Your task to perform on an android device: toggle priority inbox in the gmail app Image 0: 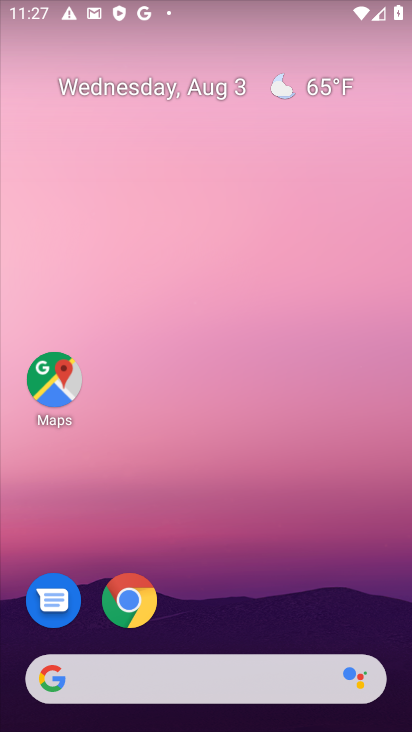
Step 0: drag from (207, 647) to (203, 142)
Your task to perform on an android device: toggle priority inbox in the gmail app Image 1: 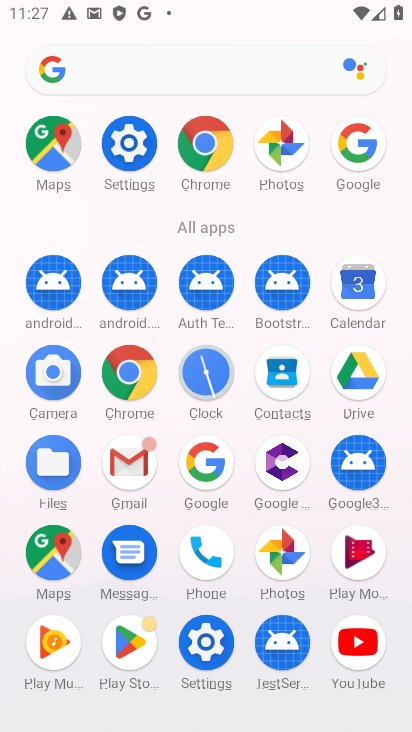
Step 1: click (128, 464)
Your task to perform on an android device: toggle priority inbox in the gmail app Image 2: 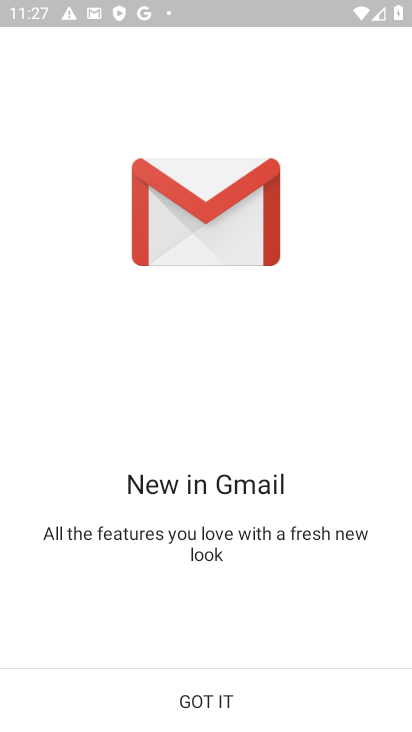
Step 2: click (194, 682)
Your task to perform on an android device: toggle priority inbox in the gmail app Image 3: 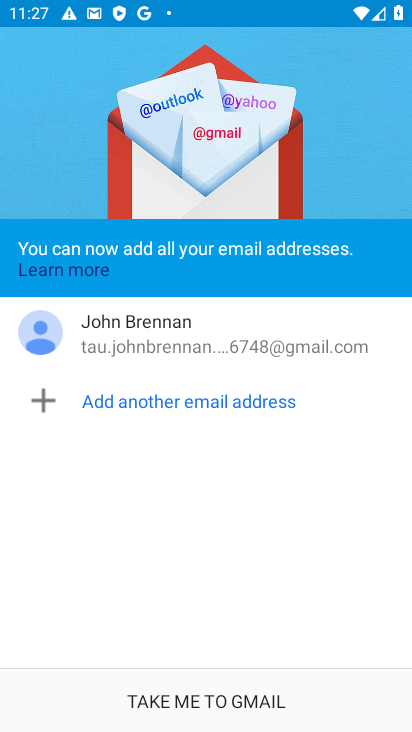
Step 3: click (250, 686)
Your task to perform on an android device: toggle priority inbox in the gmail app Image 4: 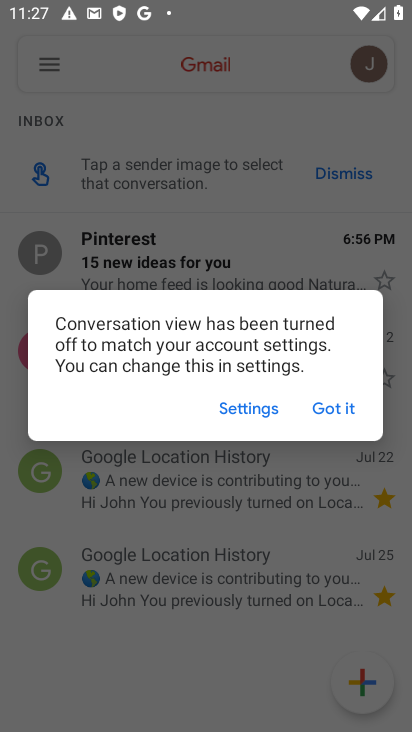
Step 4: click (335, 415)
Your task to perform on an android device: toggle priority inbox in the gmail app Image 5: 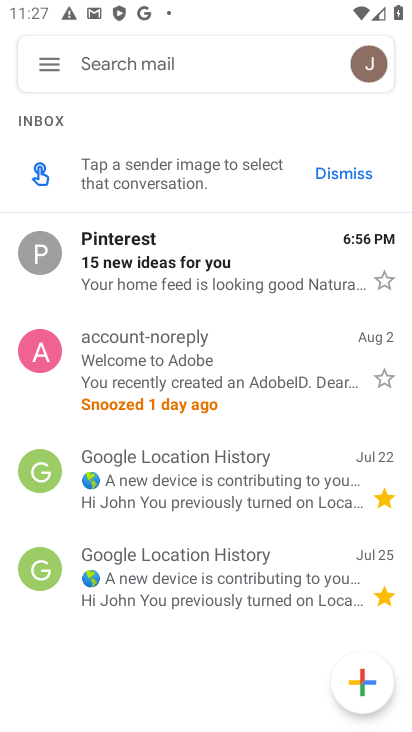
Step 5: click (43, 77)
Your task to perform on an android device: toggle priority inbox in the gmail app Image 6: 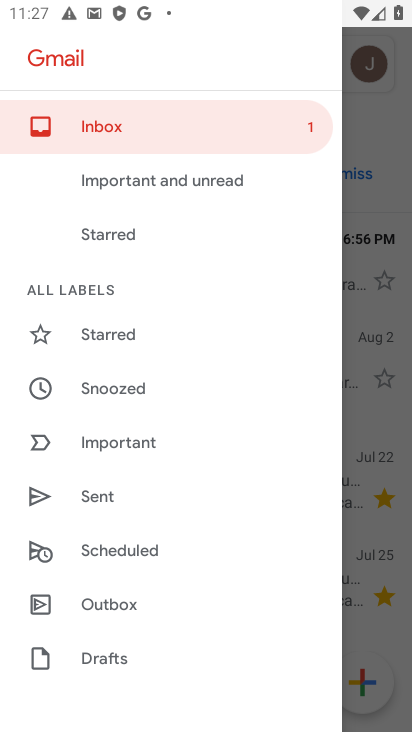
Step 6: drag from (128, 639) to (36, 51)
Your task to perform on an android device: toggle priority inbox in the gmail app Image 7: 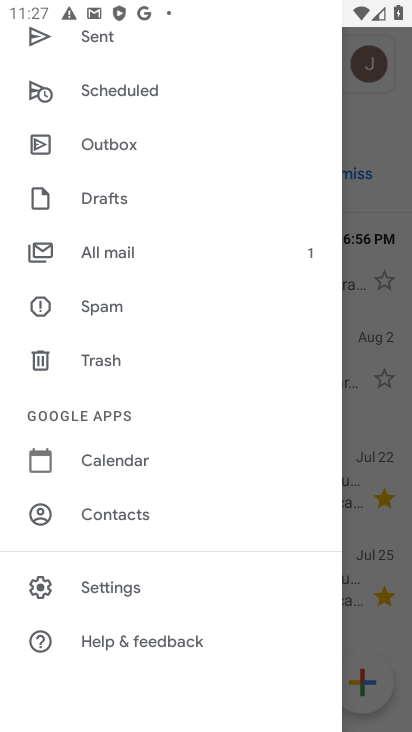
Step 7: click (89, 574)
Your task to perform on an android device: toggle priority inbox in the gmail app Image 8: 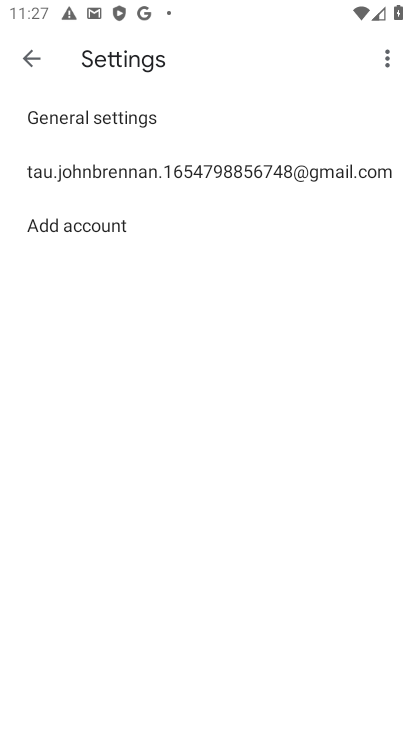
Step 8: click (90, 118)
Your task to perform on an android device: toggle priority inbox in the gmail app Image 9: 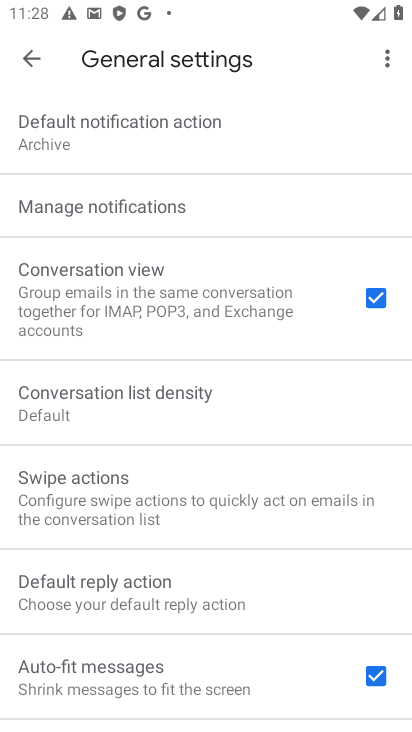
Step 9: click (40, 63)
Your task to perform on an android device: toggle priority inbox in the gmail app Image 10: 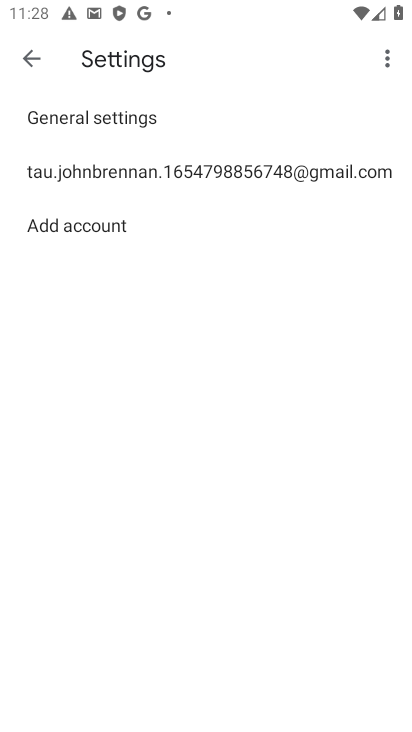
Step 10: click (79, 174)
Your task to perform on an android device: toggle priority inbox in the gmail app Image 11: 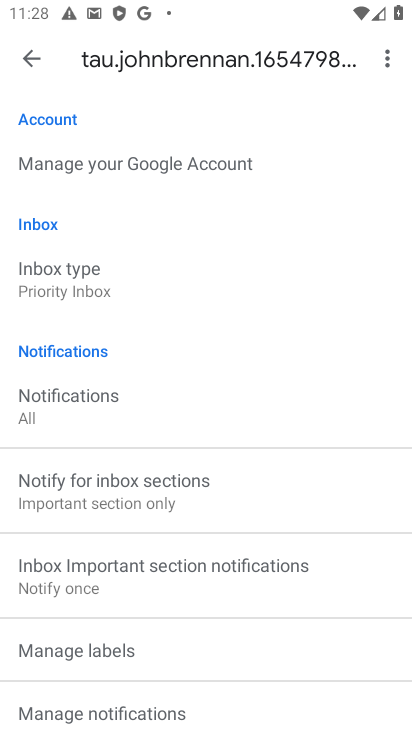
Step 11: click (87, 278)
Your task to perform on an android device: toggle priority inbox in the gmail app Image 12: 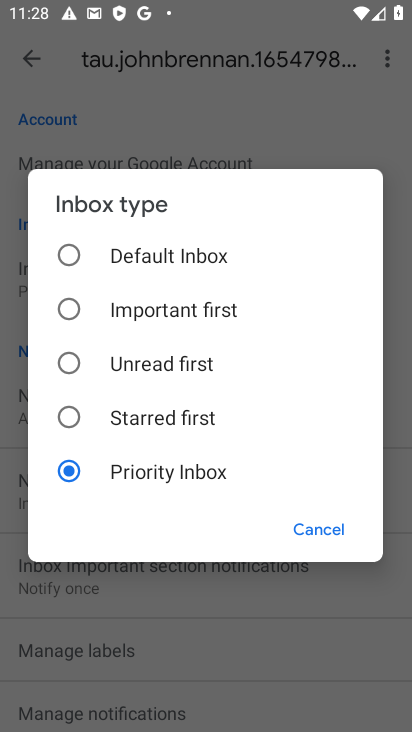
Step 12: click (73, 409)
Your task to perform on an android device: toggle priority inbox in the gmail app Image 13: 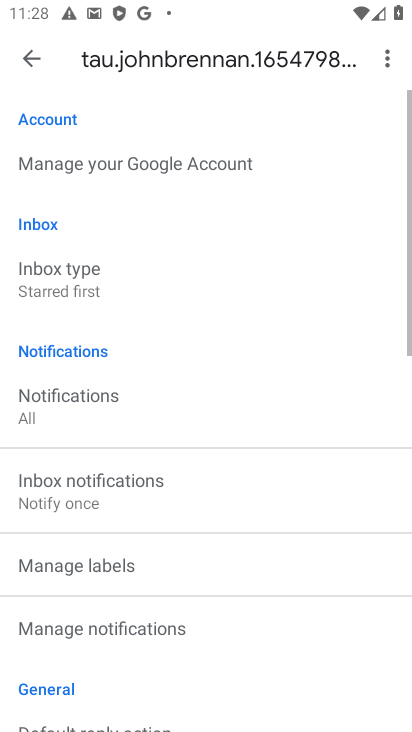
Step 13: task complete